Your task to perform on an android device: Open eBay Image 0: 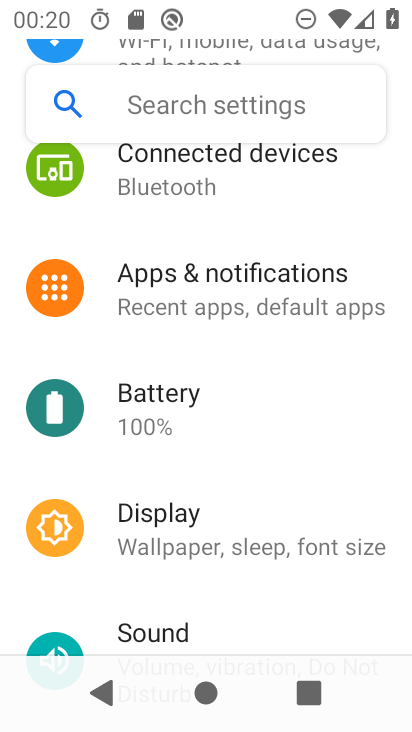
Step 0: press home button
Your task to perform on an android device: Open eBay Image 1: 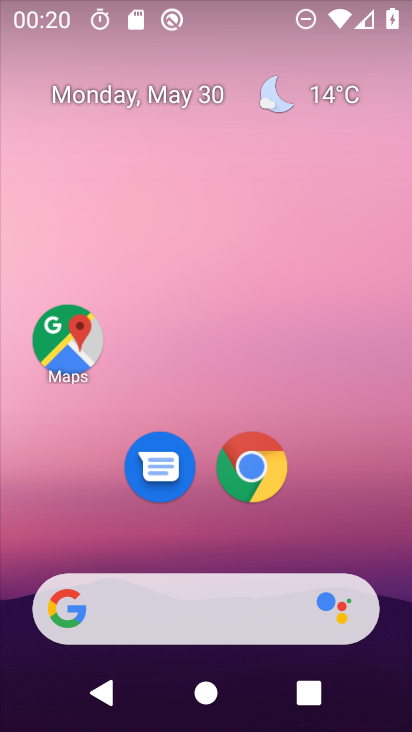
Step 1: click (239, 497)
Your task to perform on an android device: Open eBay Image 2: 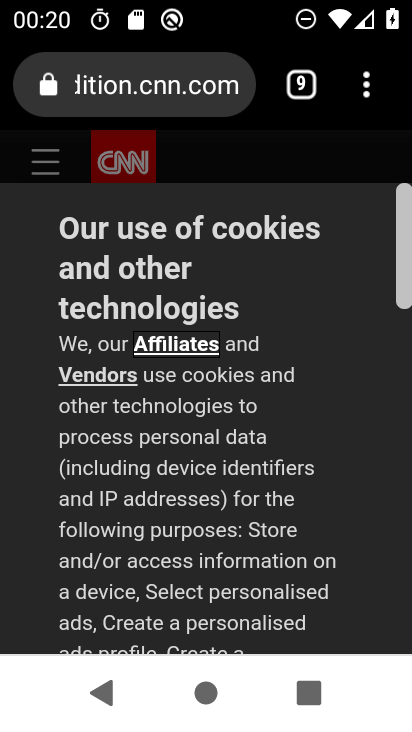
Step 2: click (310, 75)
Your task to perform on an android device: Open eBay Image 3: 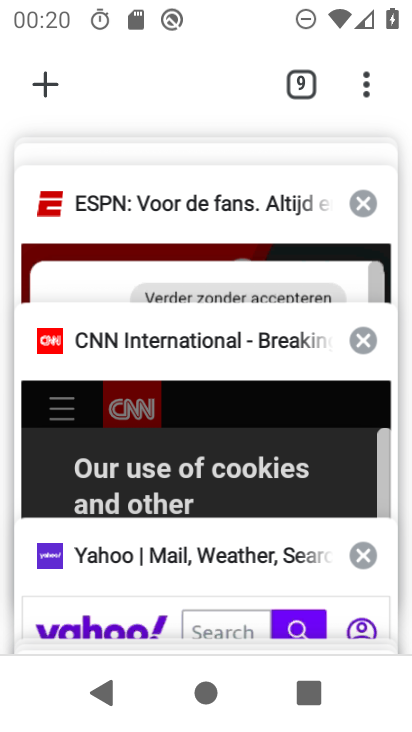
Step 3: drag from (99, 341) to (203, 511)
Your task to perform on an android device: Open eBay Image 4: 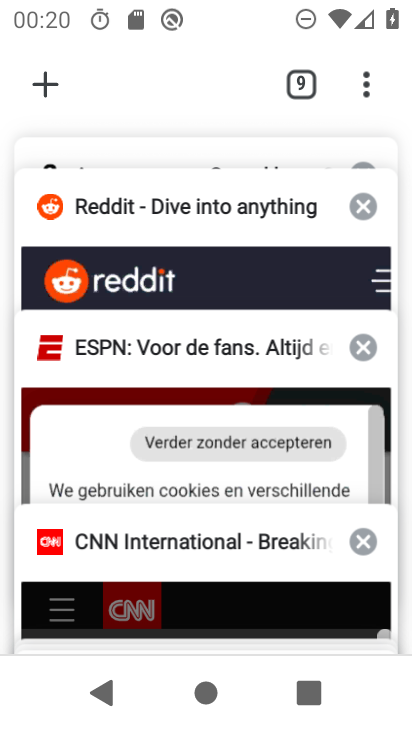
Step 4: drag from (174, 309) to (174, 520)
Your task to perform on an android device: Open eBay Image 5: 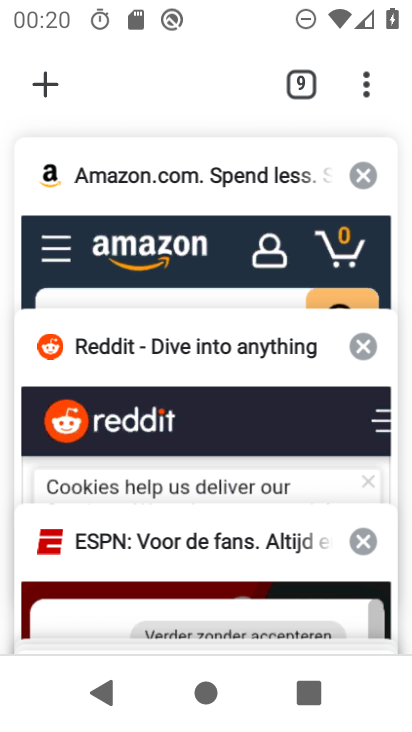
Step 5: drag from (177, 308) to (197, 443)
Your task to perform on an android device: Open eBay Image 6: 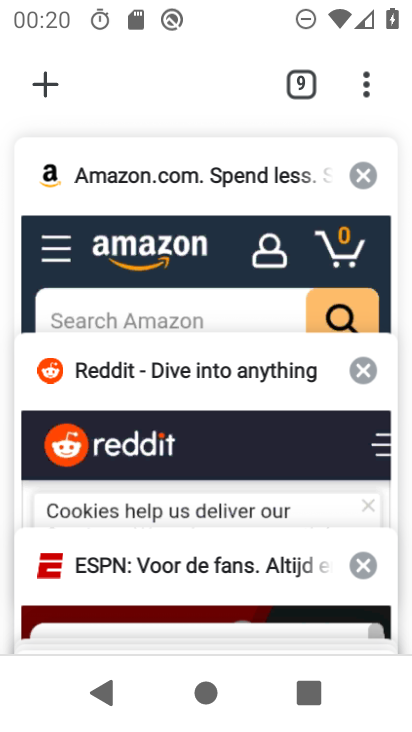
Step 6: drag from (198, 288) to (205, 435)
Your task to perform on an android device: Open eBay Image 7: 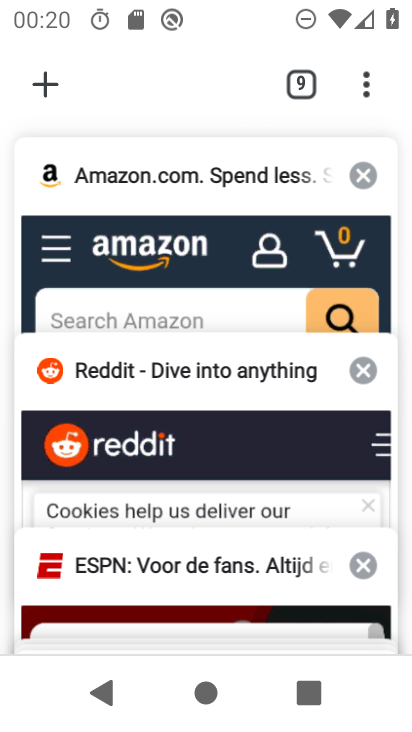
Step 7: drag from (195, 258) to (190, 460)
Your task to perform on an android device: Open eBay Image 8: 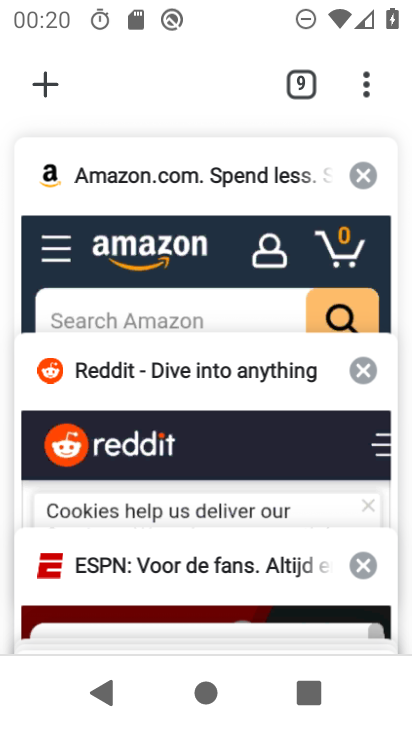
Step 8: drag from (187, 285) to (187, 428)
Your task to perform on an android device: Open eBay Image 9: 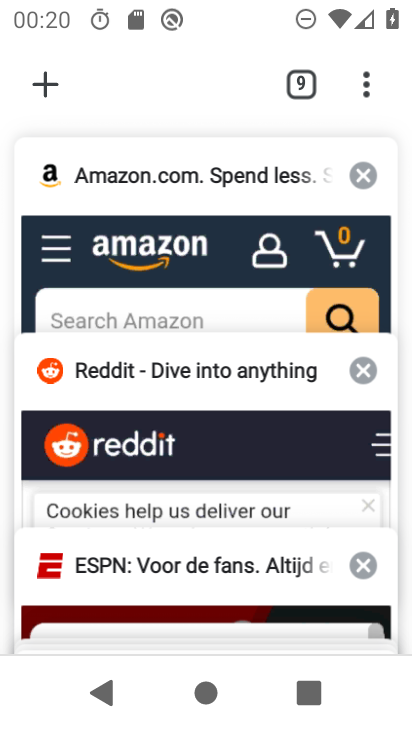
Step 9: drag from (168, 275) to (168, 420)
Your task to perform on an android device: Open eBay Image 10: 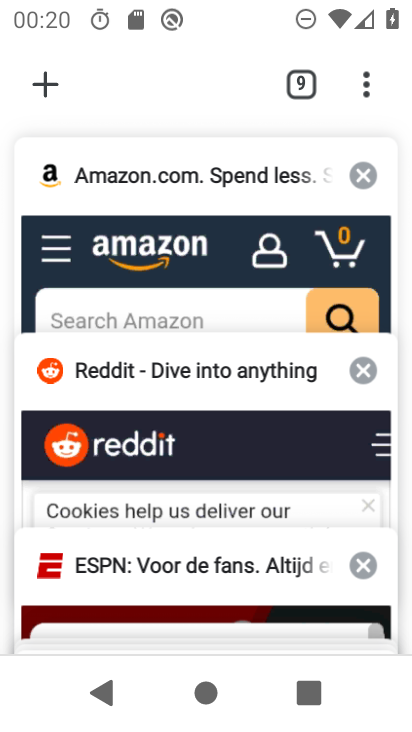
Step 10: click (49, 86)
Your task to perform on an android device: Open eBay Image 11: 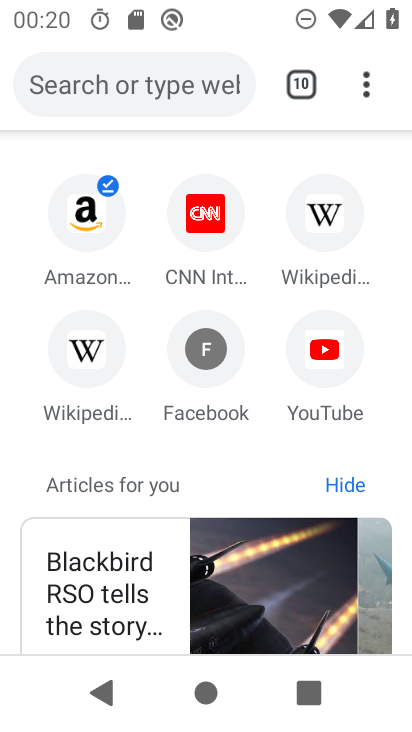
Step 11: click (142, 90)
Your task to perform on an android device: Open eBay Image 12: 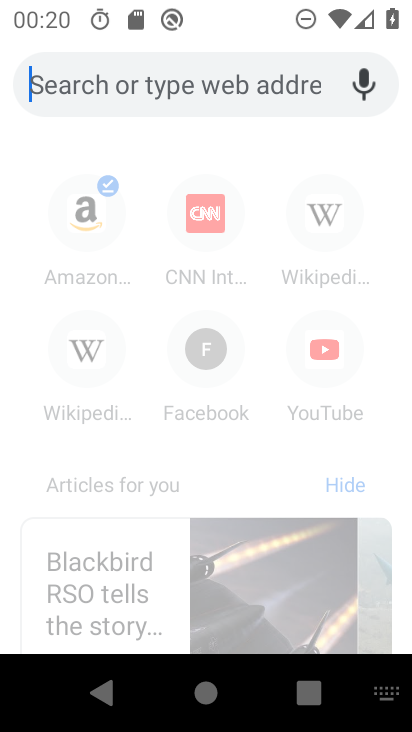
Step 12: type "eBay"
Your task to perform on an android device: Open eBay Image 13: 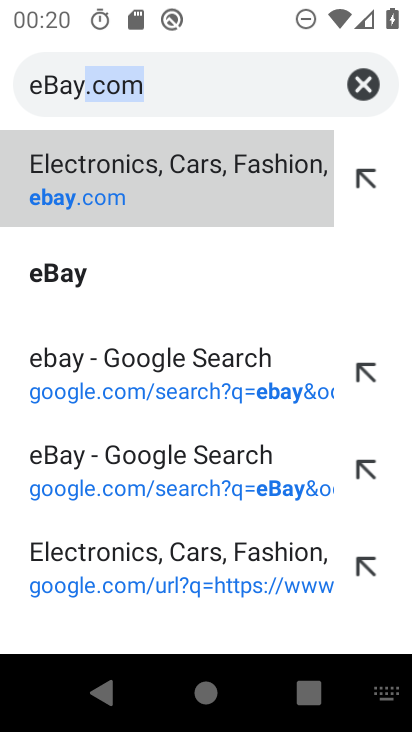
Step 13: click (127, 214)
Your task to perform on an android device: Open eBay Image 14: 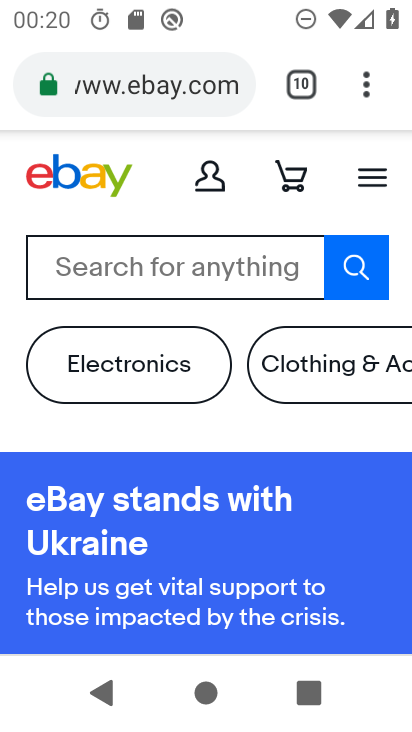
Step 14: task complete